Your task to perform on an android device: turn on data saver in the chrome app Image 0: 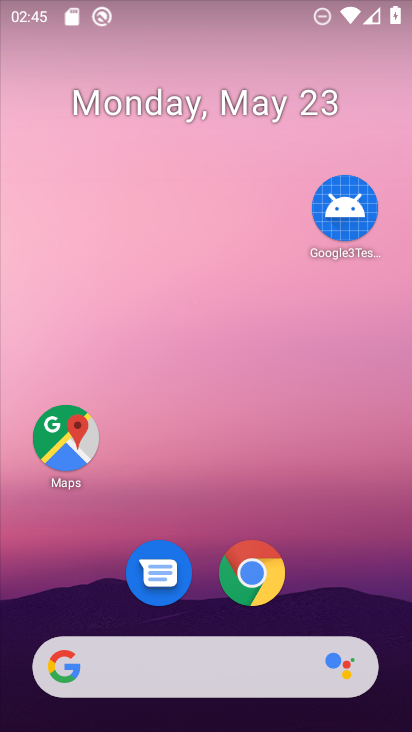
Step 0: click (253, 572)
Your task to perform on an android device: turn on data saver in the chrome app Image 1: 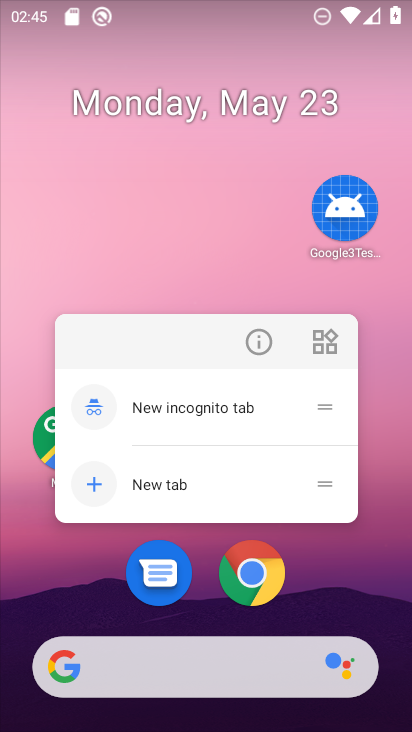
Step 1: click (254, 570)
Your task to perform on an android device: turn on data saver in the chrome app Image 2: 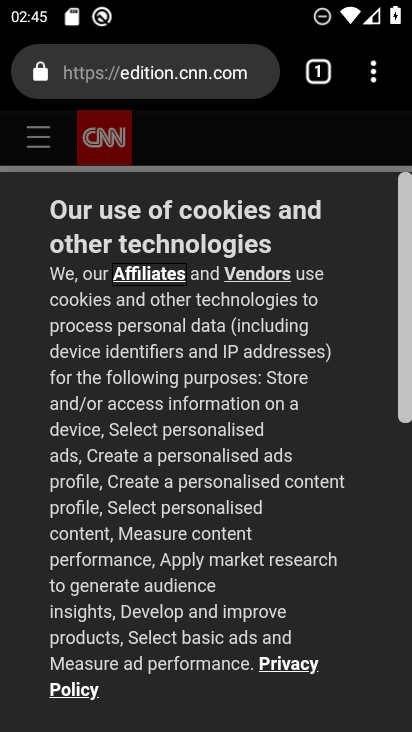
Step 2: drag from (376, 64) to (156, 570)
Your task to perform on an android device: turn on data saver in the chrome app Image 3: 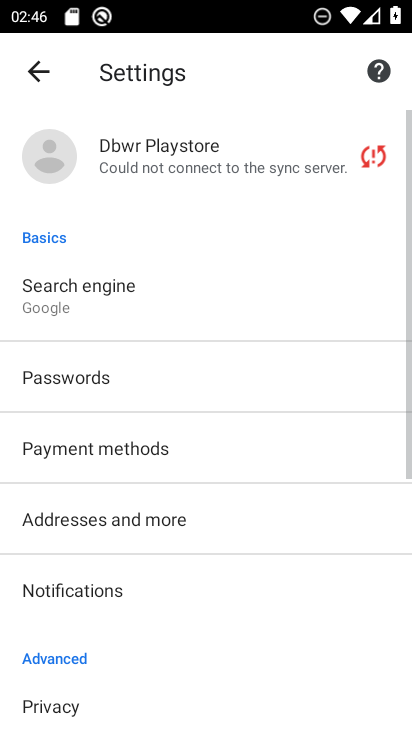
Step 3: drag from (154, 606) to (265, 99)
Your task to perform on an android device: turn on data saver in the chrome app Image 4: 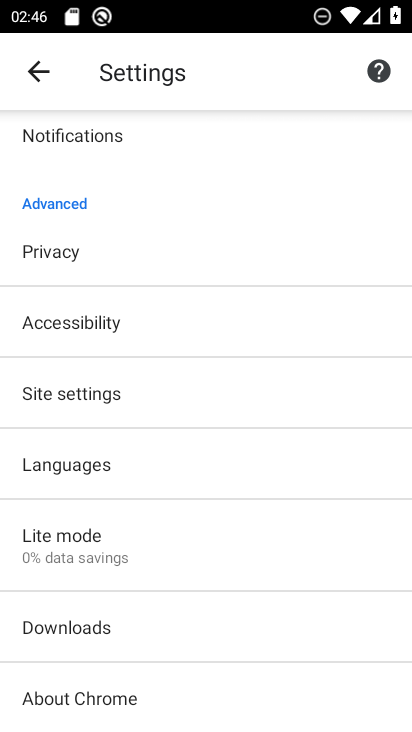
Step 4: click (97, 547)
Your task to perform on an android device: turn on data saver in the chrome app Image 5: 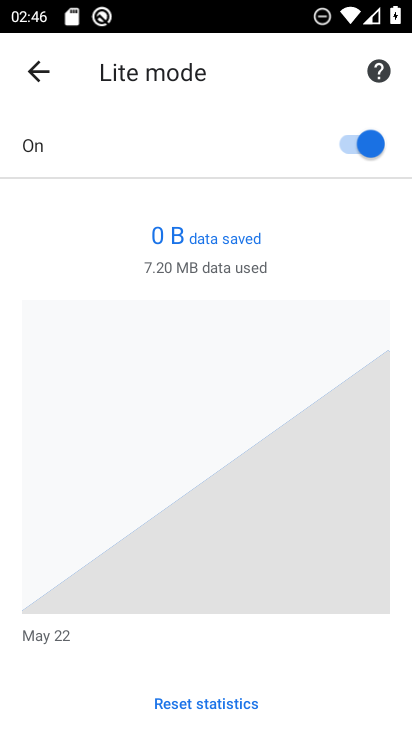
Step 5: task complete